Your task to perform on an android device: change the clock display to digital Image 0: 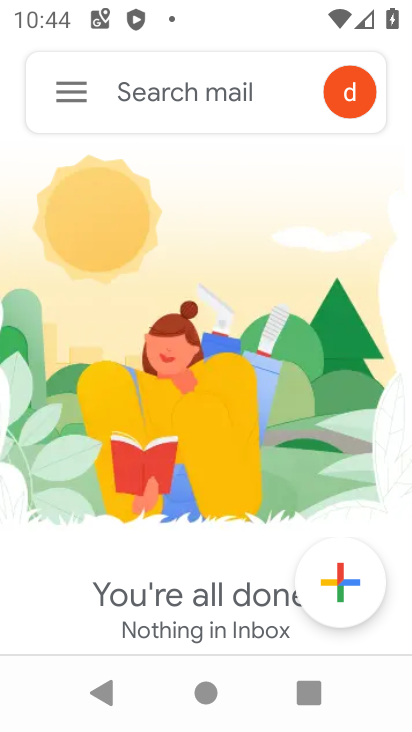
Step 0: press home button
Your task to perform on an android device: change the clock display to digital Image 1: 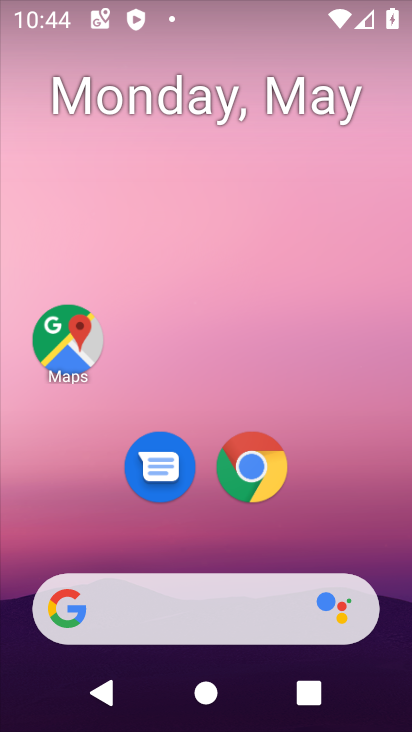
Step 1: drag from (389, 667) to (379, 230)
Your task to perform on an android device: change the clock display to digital Image 2: 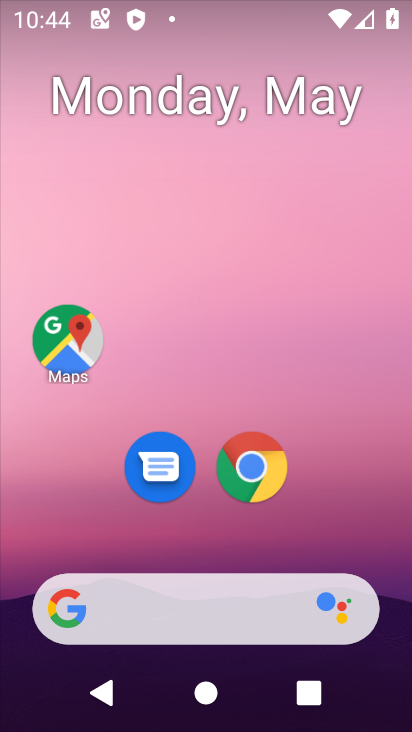
Step 2: drag from (392, 695) to (375, 144)
Your task to perform on an android device: change the clock display to digital Image 3: 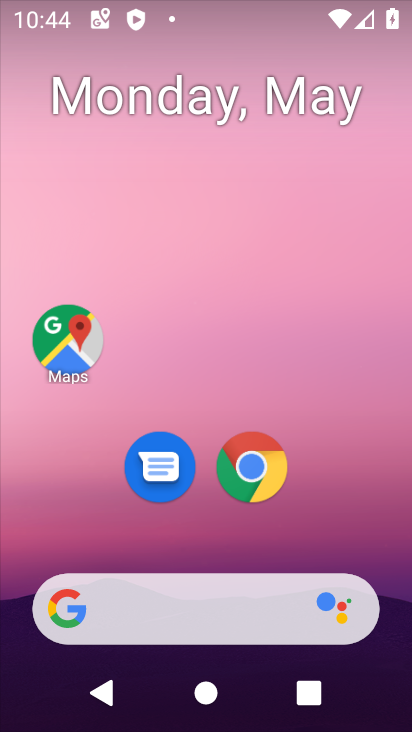
Step 3: drag from (382, 565) to (339, 126)
Your task to perform on an android device: change the clock display to digital Image 4: 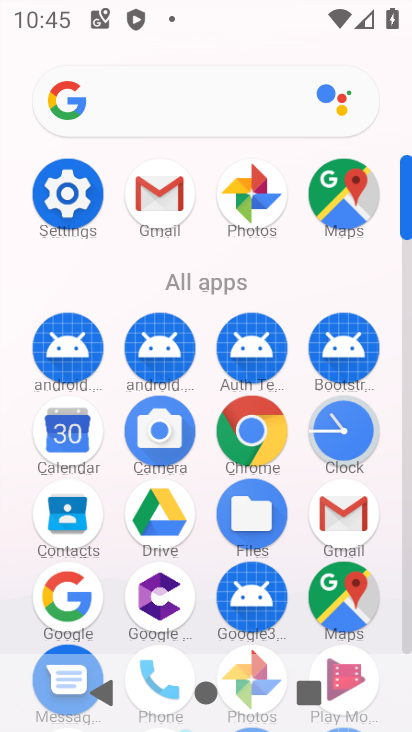
Step 4: click (72, 193)
Your task to perform on an android device: change the clock display to digital Image 5: 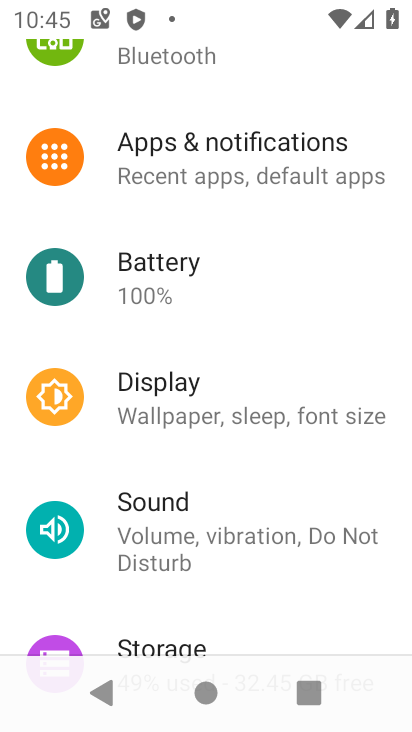
Step 5: click (170, 409)
Your task to perform on an android device: change the clock display to digital Image 6: 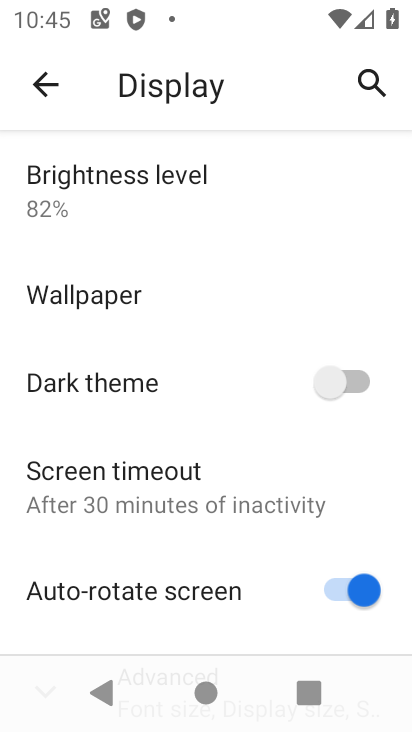
Step 6: drag from (195, 576) to (230, 258)
Your task to perform on an android device: change the clock display to digital Image 7: 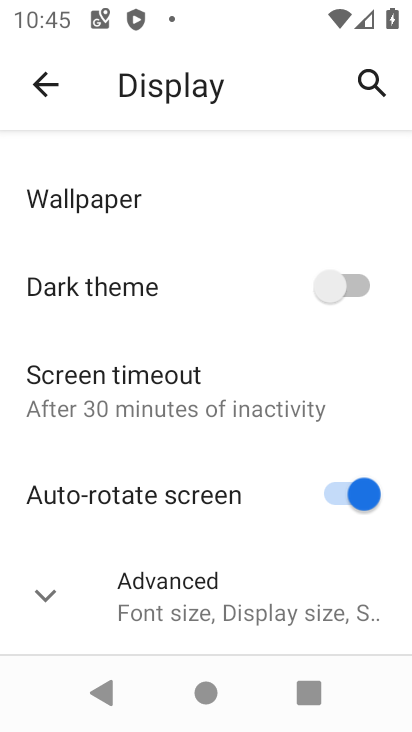
Step 7: drag from (243, 198) to (220, 592)
Your task to perform on an android device: change the clock display to digital Image 8: 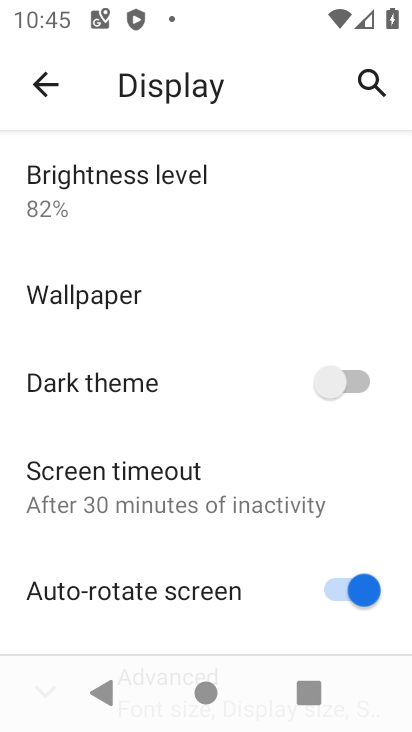
Step 8: press back button
Your task to perform on an android device: change the clock display to digital Image 9: 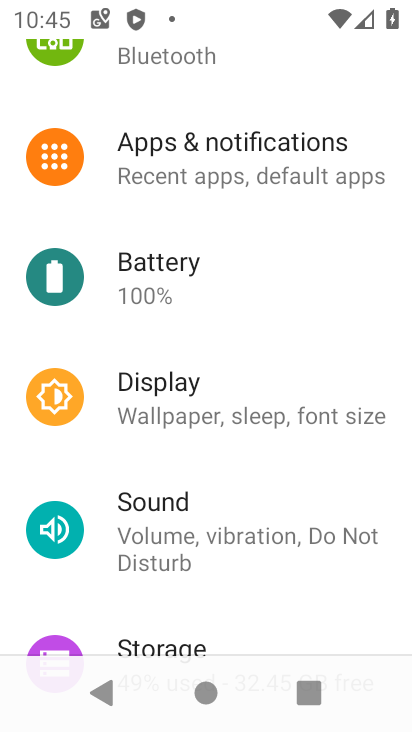
Step 9: press back button
Your task to perform on an android device: change the clock display to digital Image 10: 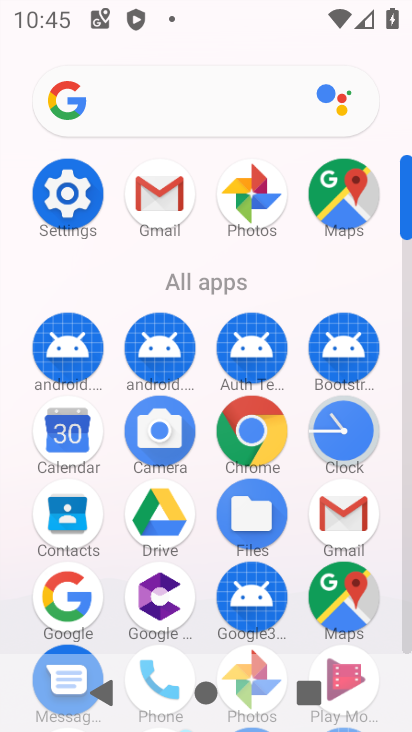
Step 10: press home button
Your task to perform on an android device: change the clock display to digital Image 11: 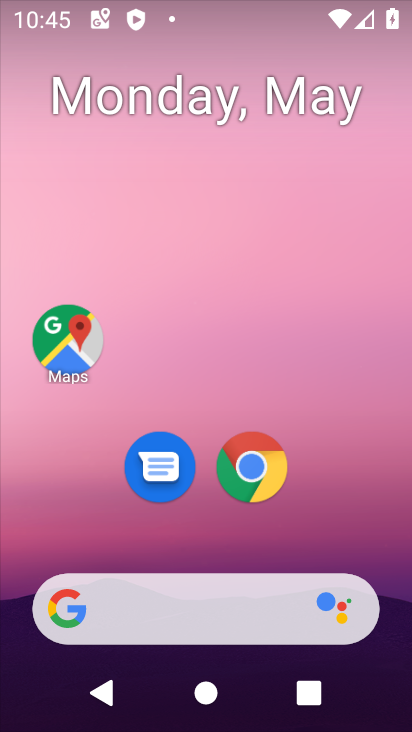
Step 11: drag from (386, 611) to (380, 231)
Your task to perform on an android device: change the clock display to digital Image 12: 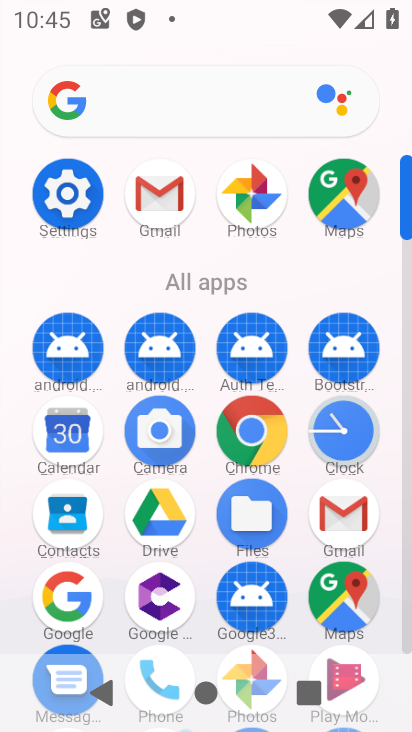
Step 12: drag from (204, 575) to (201, 276)
Your task to perform on an android device: change the clock display to digital Image 13: 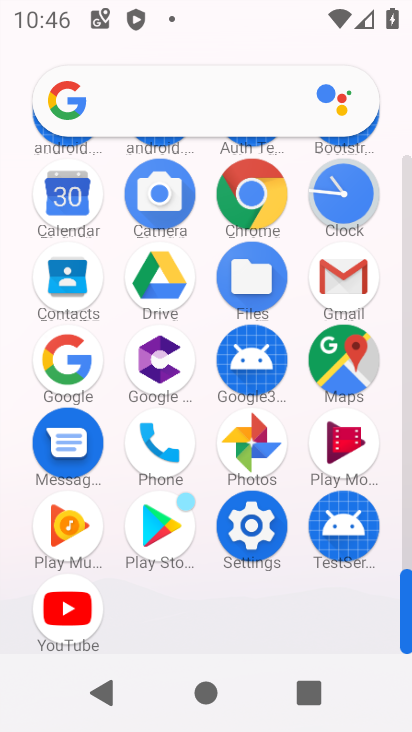
Step 13: click (378, 195)
Your task to perform on an android device: change the clock display to digital Image 14: 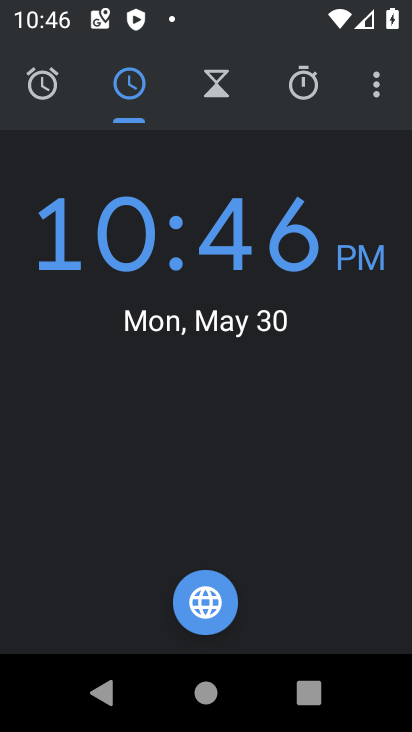
Step 14: click (380, 77)
Your task to perform on an android device: change the clock display to digital Image 15: 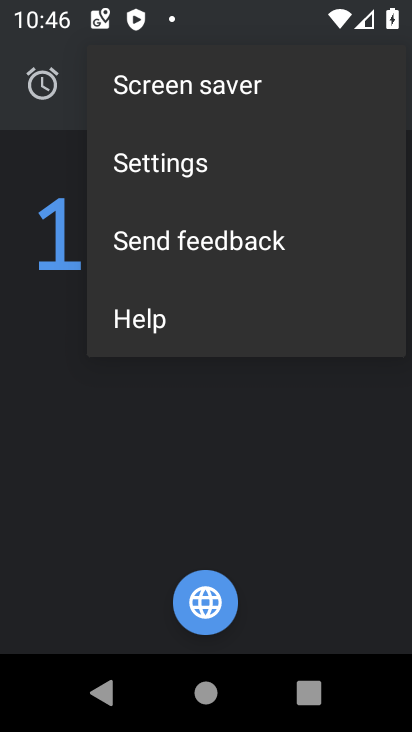
Step 15: click (161, 157)
Your task to perform on an android device: change the clock display to digital Image 16: 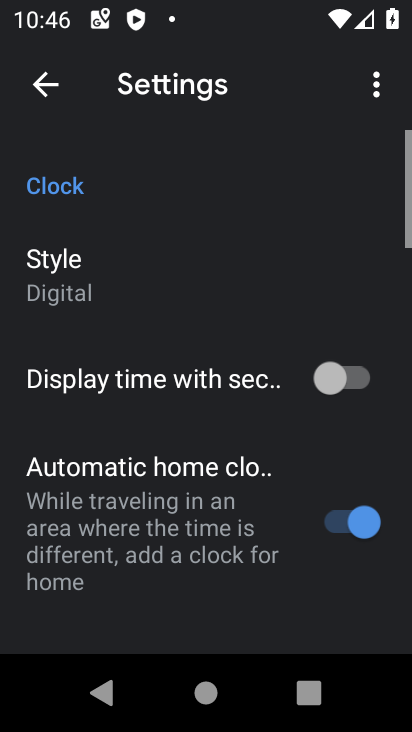
Step 16: click (65, 278)
Your task to perform on an android device: change the clock display to digital Image 17: 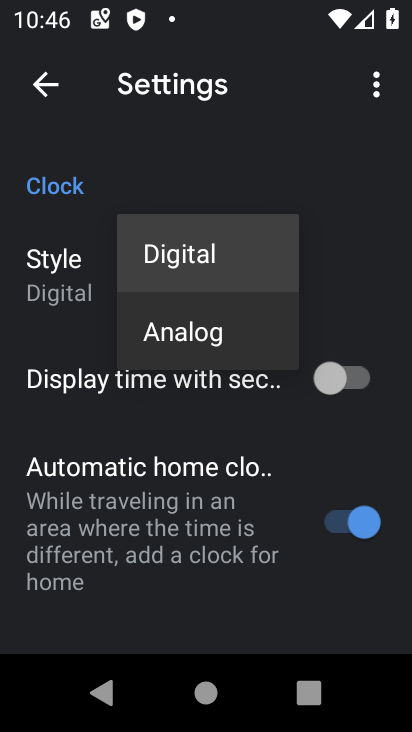
Step 17: click (181, 246)
Your task to perform on an android device: change the clock display to digital Image 18: 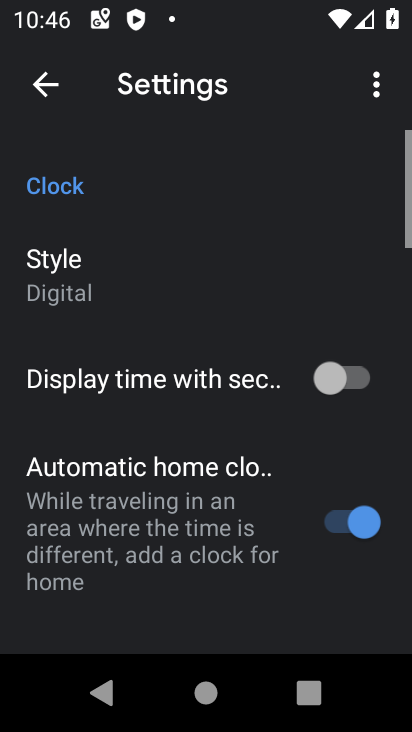
Step 18: task complete